Your task to perform on an android device: turn notification dots off Image 0: 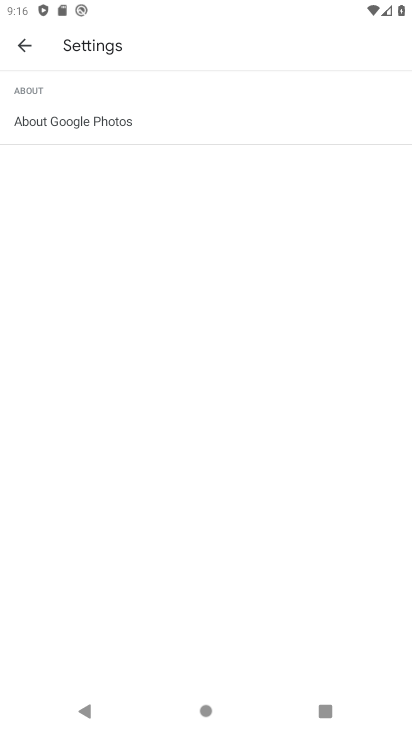
Step 0: press home button
Your task to perform on an android device: turn notification dots off Image 1: 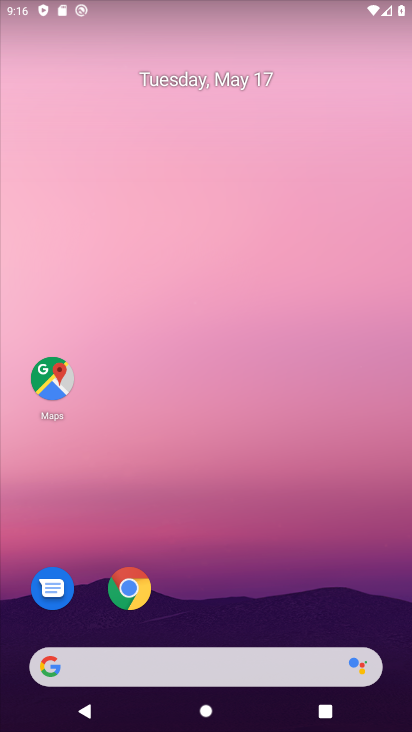
Step 1: drag from (209, 629) to (152, 30)
Your task to perform on an android device: turn notification dots off Image 2: 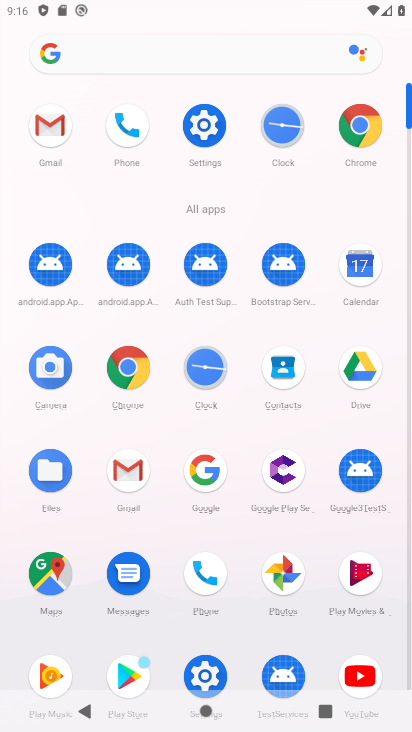
Step 2: click (191, 130)
Your task to perform on an android device: turn notification dots off Image 3: 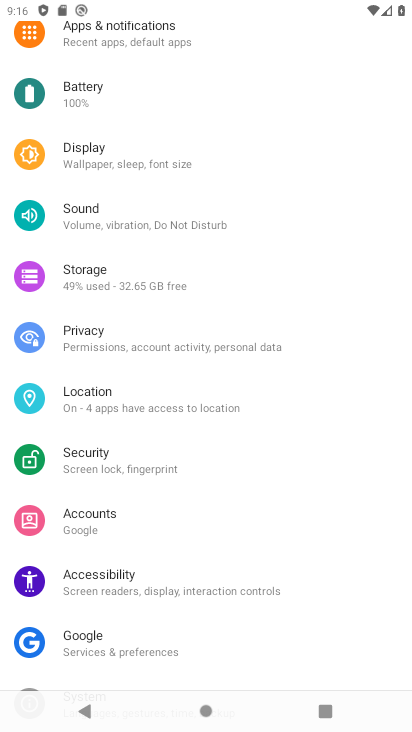
Step 3: drag from (176, 589) to (143, 627)
Your task to perform on an android device: turn notification dots off Image 4: 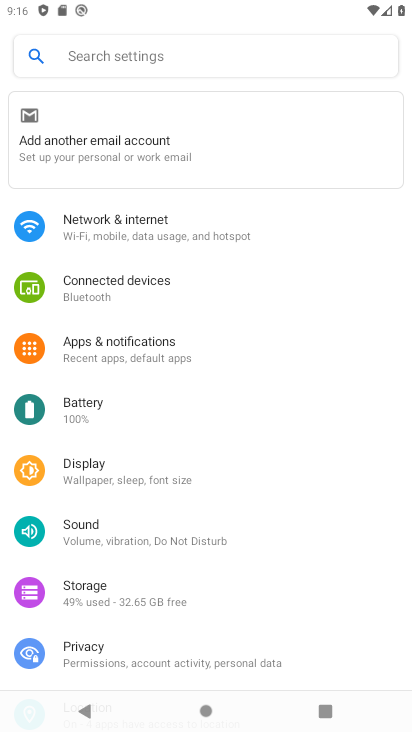
Step 4: click (100, 353)
Your task to perform on an android device: turn notification dots off Image 5: 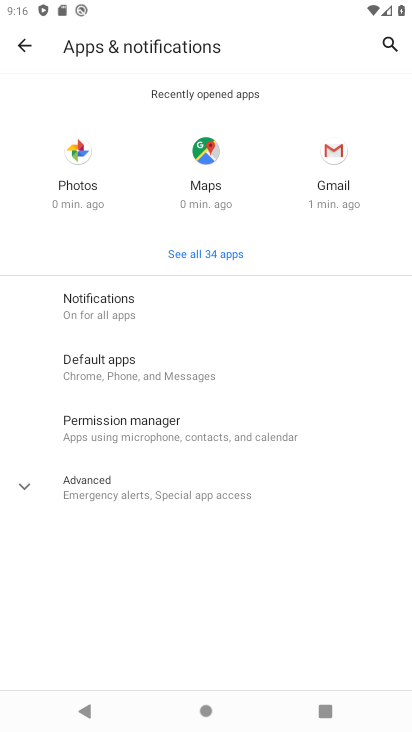
Step 5: click (94, 303)
Your task to perform on an android device: turn notification dots off Image 6: 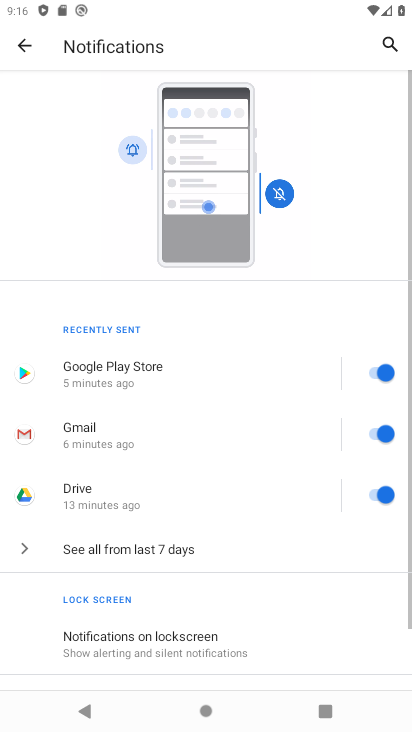
Step 6: drag from (221, 630) to (199, 135)
Your task to perform on an android device: turn notification dots off Image 7: 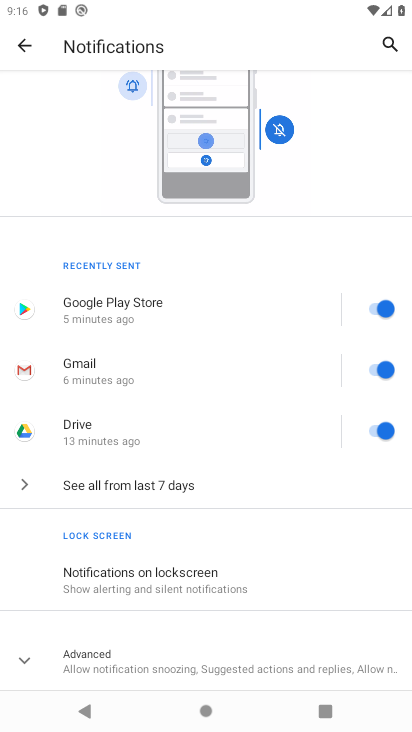
Step 7: click (145, 654)
Your task to perform on an android device: turn notification dots off Image 8: 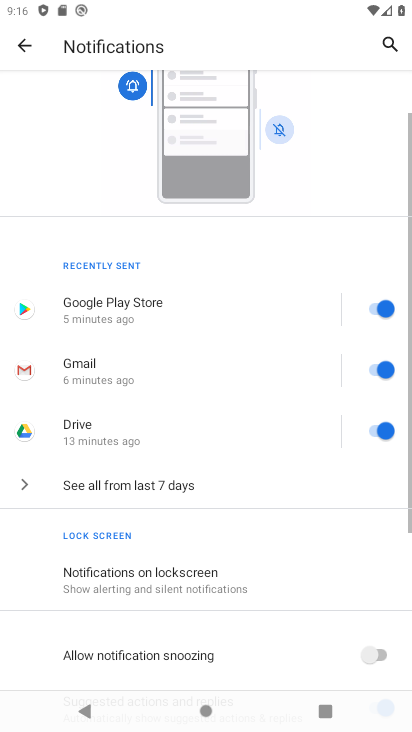
Step 8: drag from (145, 655) to (120, 294)
Your task to perform on an android device: turn notification dots off Image 9: 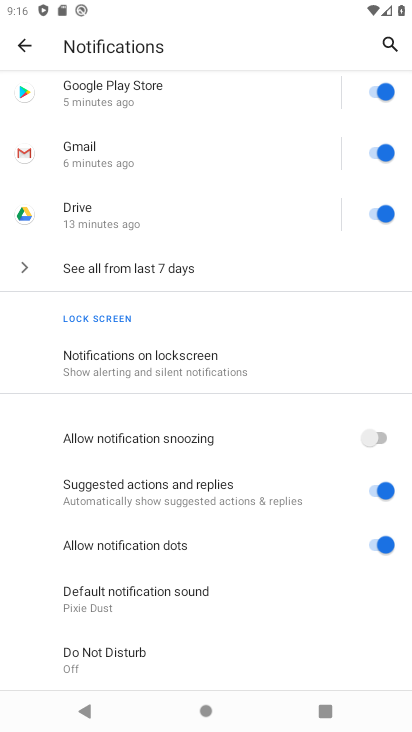
Step 9: click (378, 545)
Your task to perform on an android device: turn notification dots off Image 10: 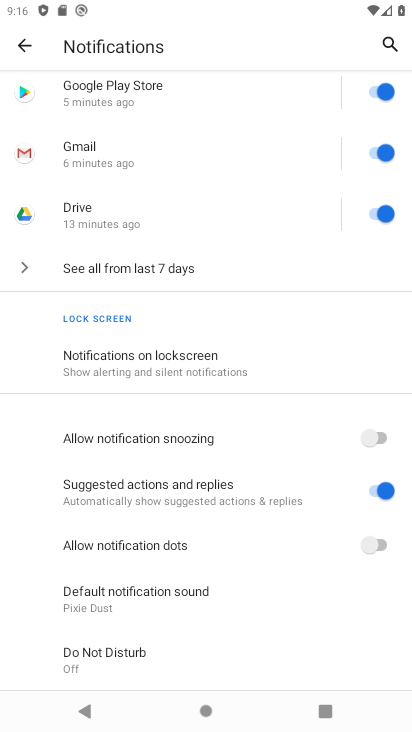
Step 10: task complete